Your task to perform on an android device: What's the weather? Image 0: 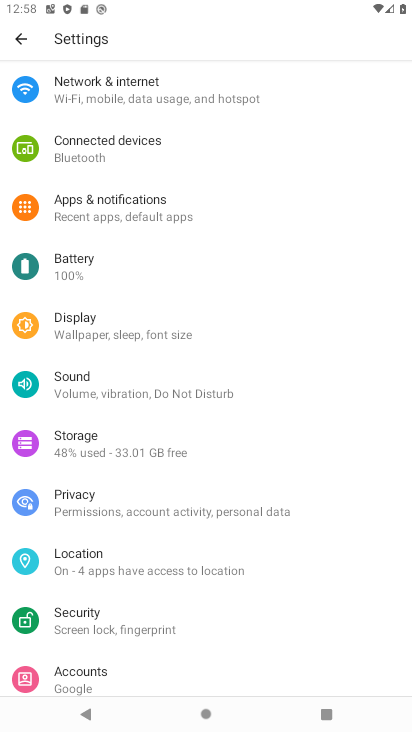
Step 0: press home button
Your task to perform on an android device: What's the weather? Image 1: 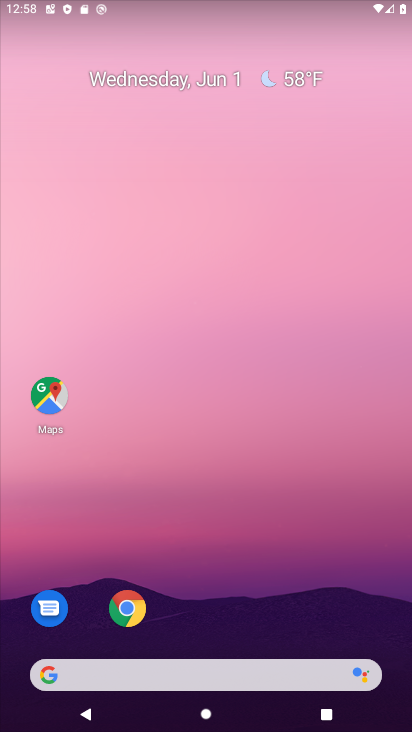
Step 1: click (226, 666)
Your task to perform on an android device: What's the weather? Image 2: 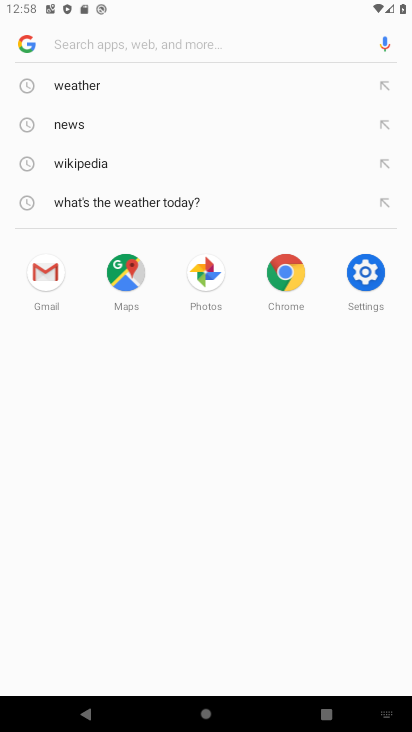
Step 2: click (70, 93)
Your task to perform on an android device: What's the weather? Image 3: 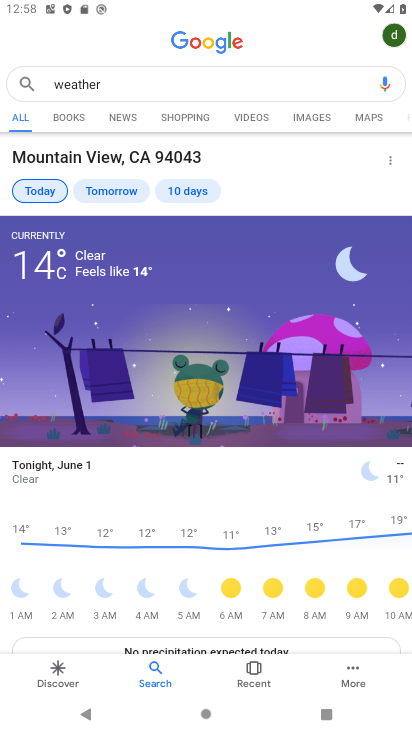
Step 3: task complete